Your task to perform on an android device: Go to eBay Image 0: 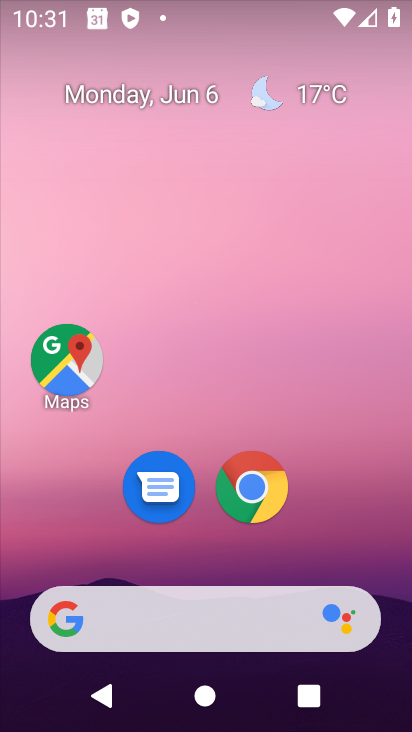
Step 0: click (285, 494)
Your task to perform on an android device: Go to eBay Image 1: 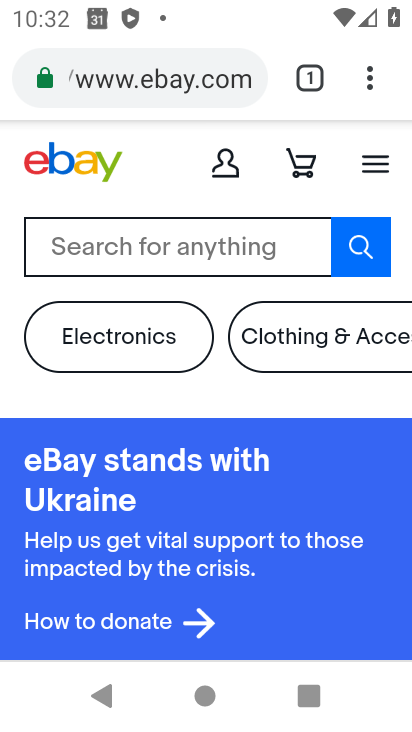
Step 1: task complete